Your task to perform on an android device: Open Google Chrome and open the bookmarks view Image 0: 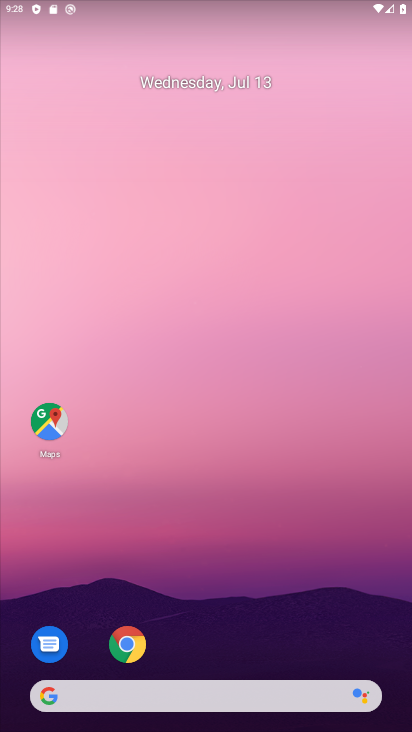
Step 0: click (310, 50)
Your task to perform on an android device: Open Google Chrome and open the bookmarks view Image 1: 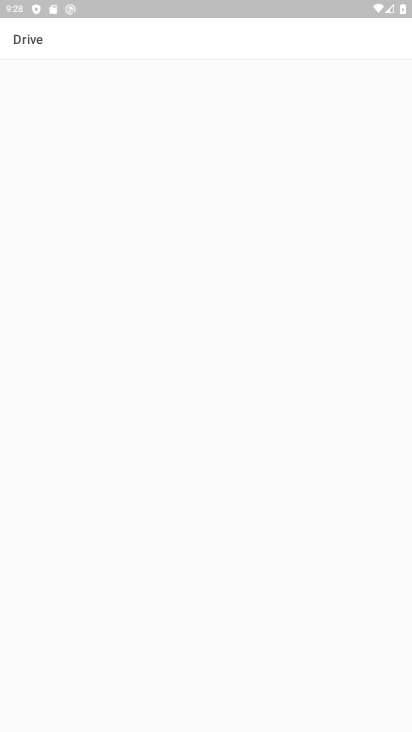
Step 1: drag from (274, 664) to (325, 319)
Your task to perform on an android device: Open Google Chrome and open the bookmarks view Image 2: 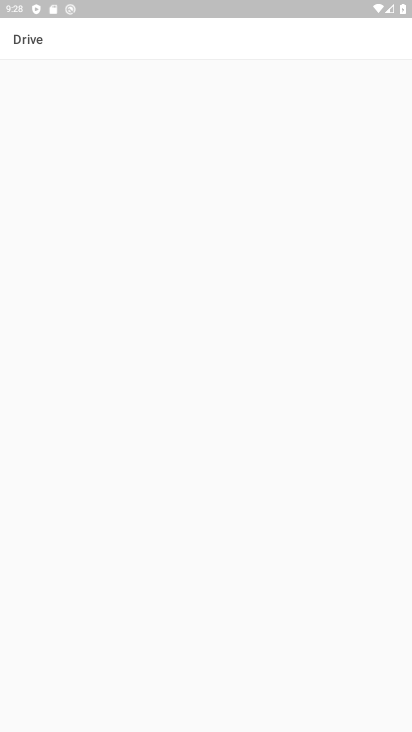
Step 2: press home button
Your task to perform on an android device: Open Google Chrome and open the bookmarks view Image 3: 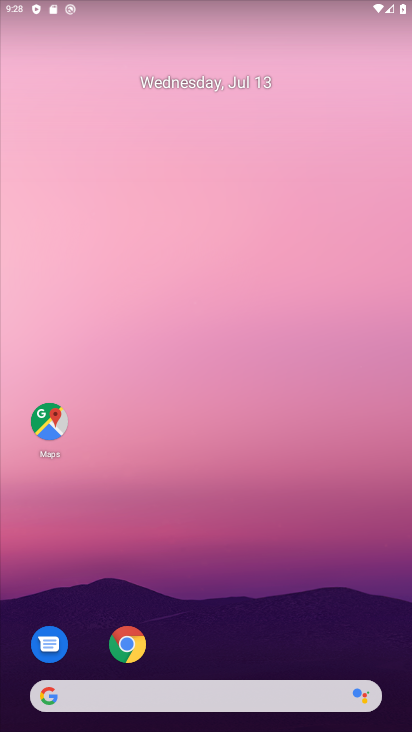
Step 3: click (118, 658)
Your task to perform on an android device: Open Google Chrome and open the bookmarks view Image 4: 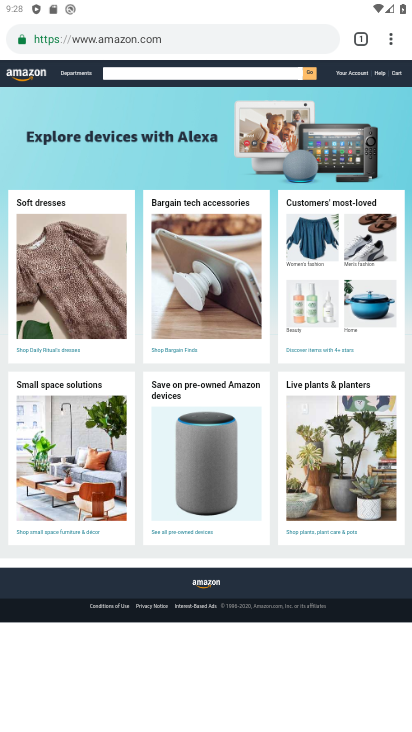
Step 4: task complete